Your task to perform on an android device: delete the emails in spam in the gmail app Image 0: 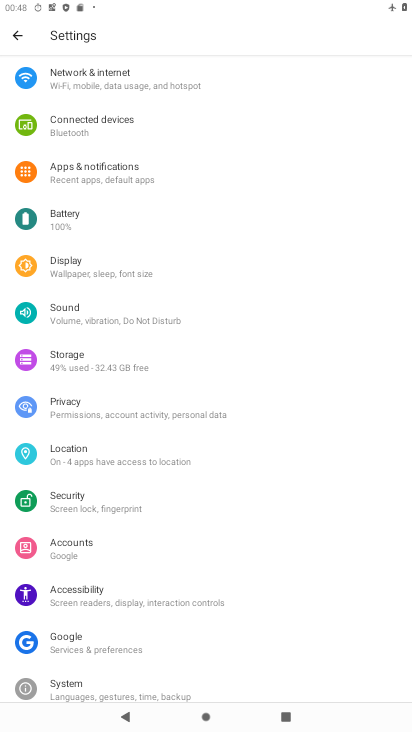
Step 0: press home button
Your task to perform on an android device: delete the emails in spam in the gmail app Image 1: 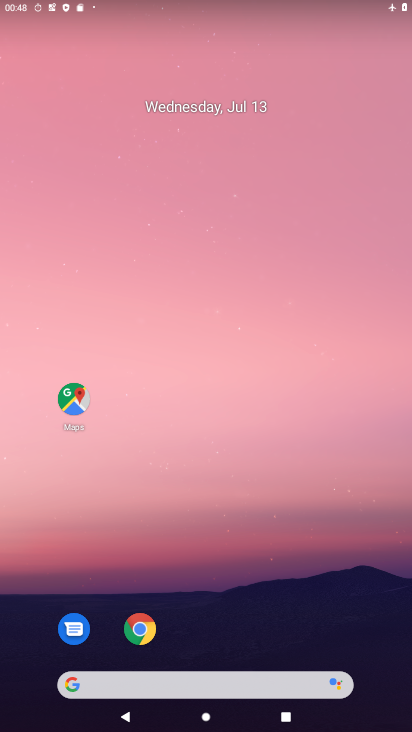
Step 1: drag from (206, 648) to (202, 290)
Your task to perform on an android device: delete the emails in spam in the gmail app Image 2: 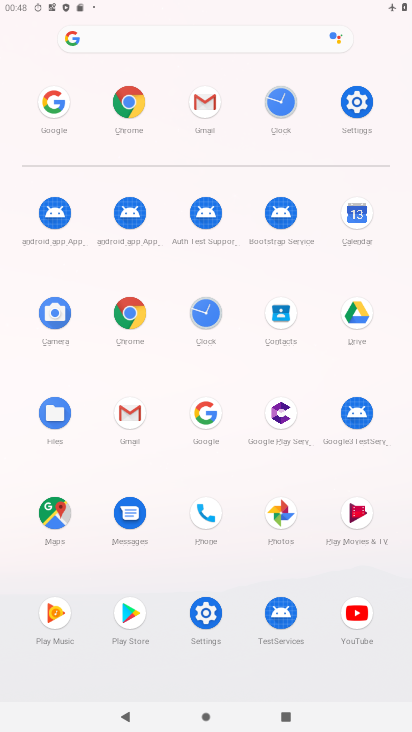
Step 2: click (198, 130)
Your task to perform on an android device: delete the emails in spam in the gmail app Image 3: 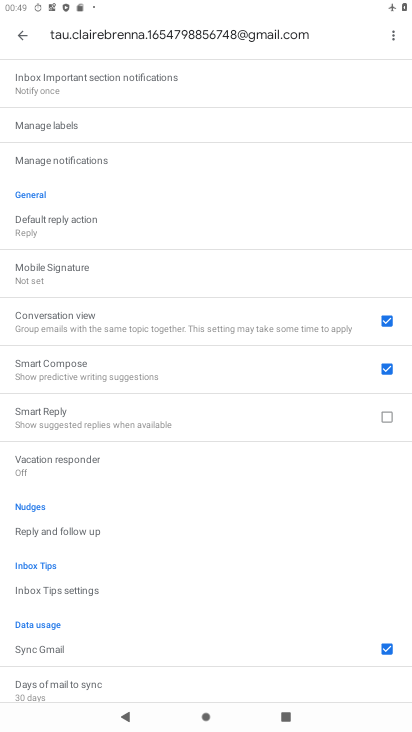
Step 3: click (27, 32)
Your task to perform on an android device: delete the emails in spam in the gmail app Image 4: 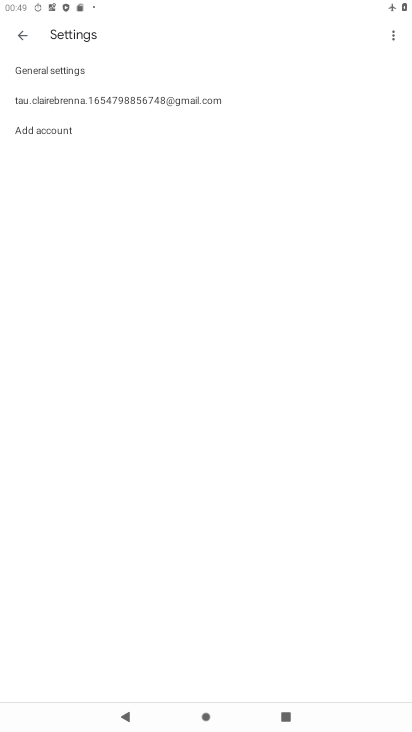
Step 4: click (27, 32)
Your task to perform on an android device: delete the emails in spam in the gmail app Image 5: 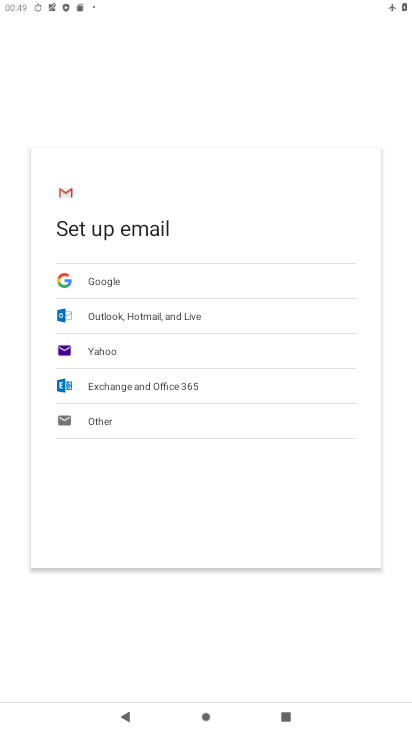
Step 5: click (138, 279)
Your task to perform on an android device: delete the emails in spam in the gmail app Image 6: 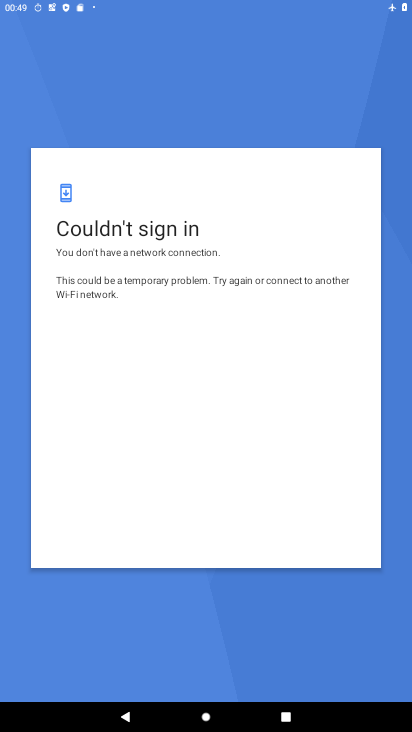
Step 6: click (312, 543)
Your task to perform on an android device: delete the emails in spam in the gmail app Image 7: 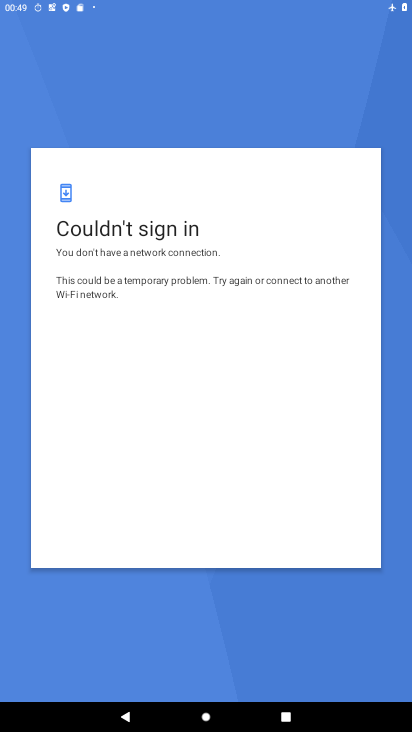
Step 7: click (248, 429)
Your task to perform on an android device: delete the emails in spam in the gmail app Image 8: 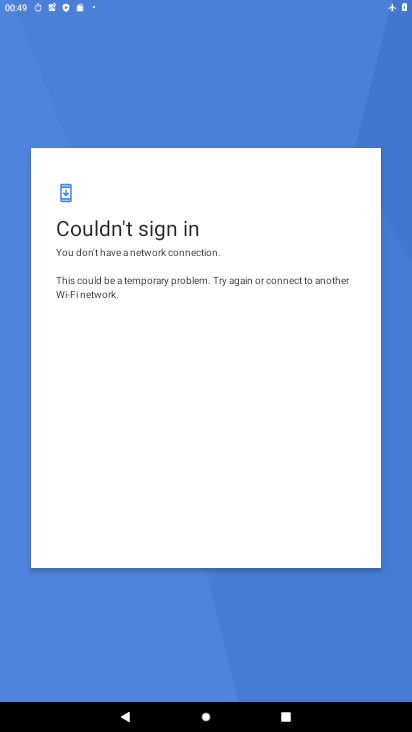
Step 8: click (323, 565)
Your task to perform on an android device: delete the emails in spam in the gmail app Image 9: 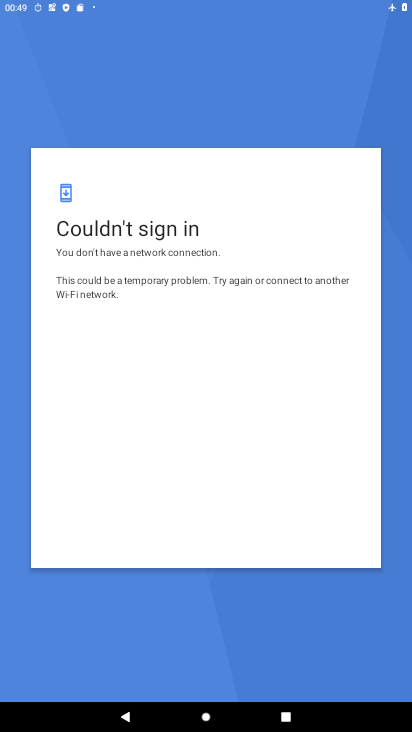
Step 9: task complete